Your task to perform on an android device: Open battery settings Image 0: 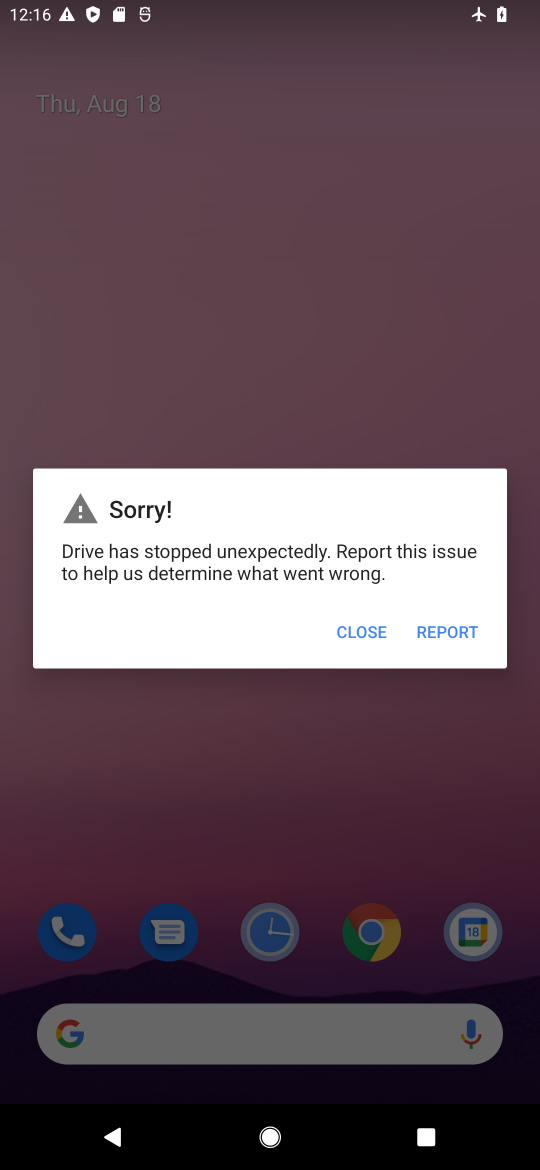
Step 0: press home button
Your task to perform on an android device: Open battery settings Image 1: 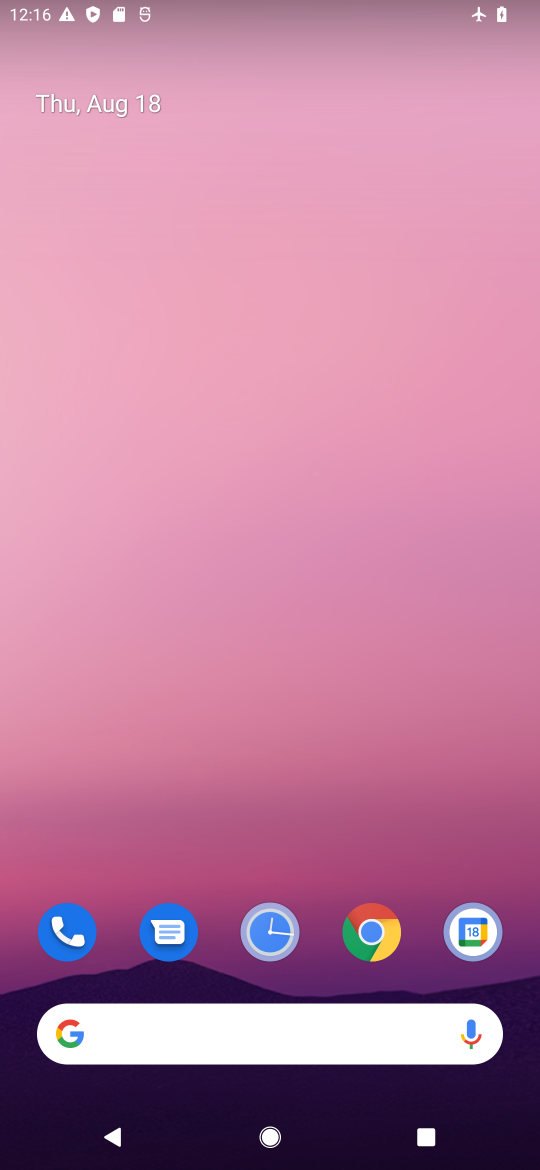
Step 1: drag from (313, 840) to (244, 242)
Your task to perform on an android device: Open battery settings Image 2: 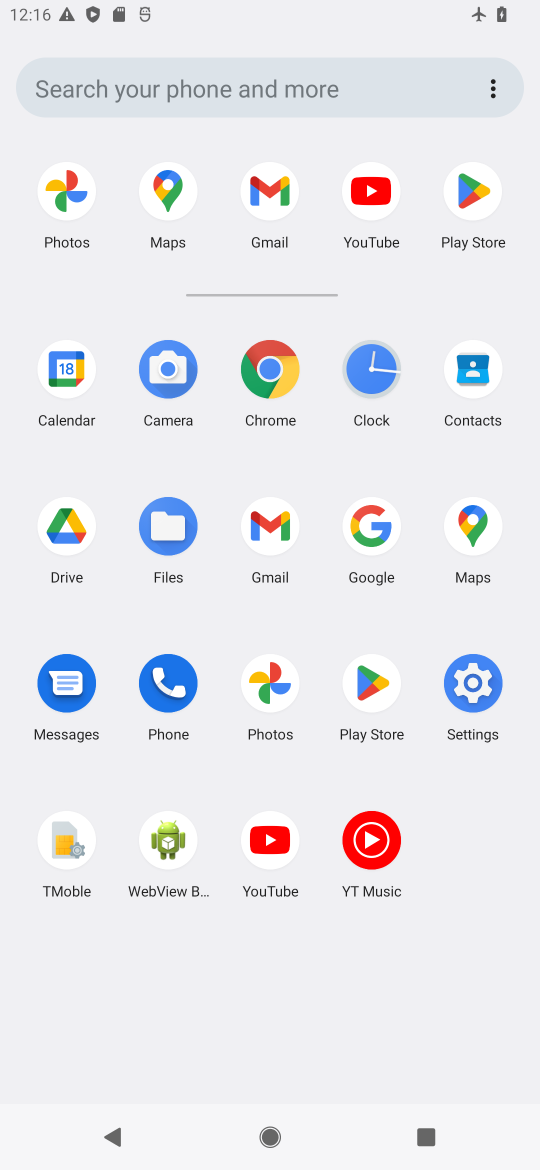
Step 2: click (470, 688)
Your task to perform on an android device: Open battery settings Image 3: 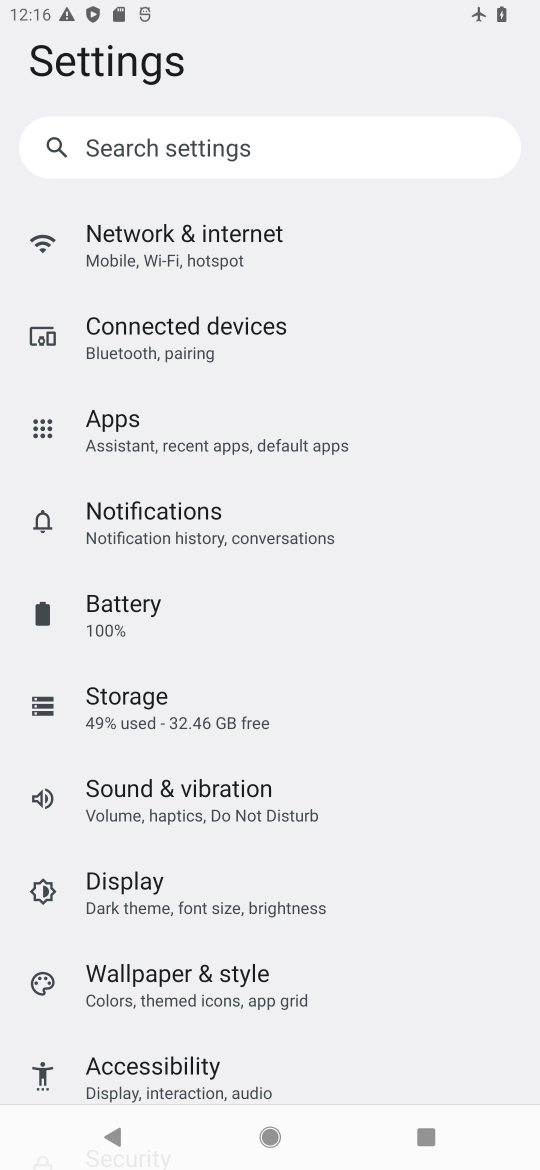
Step 3: click (109, 603)
Your task to perform on an android device: Open battery settings Image 4: 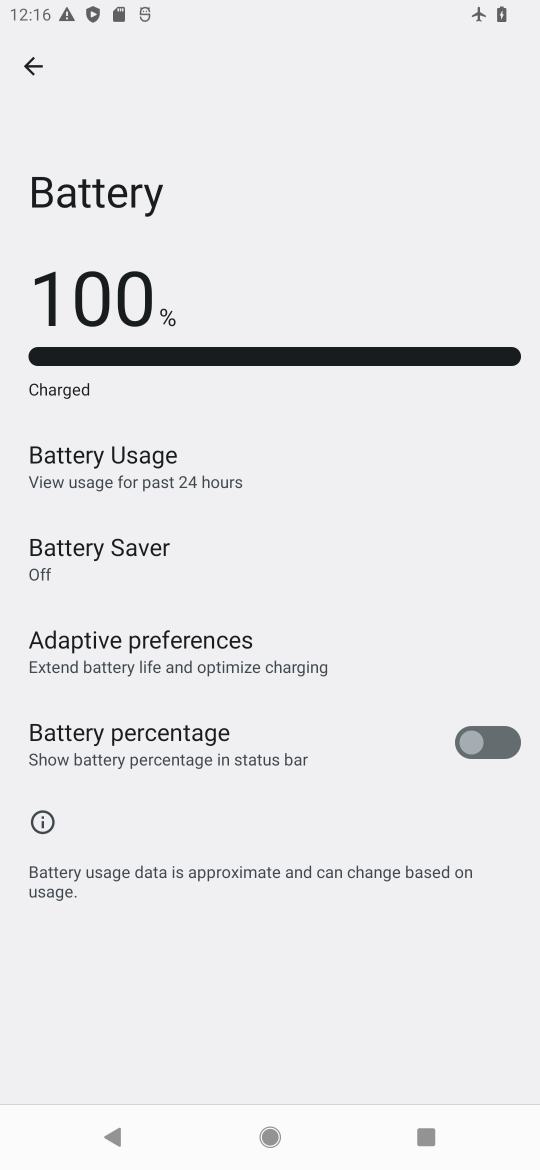
Step 4: task complete